Your task to perform on an android device: set the timer Image 0: 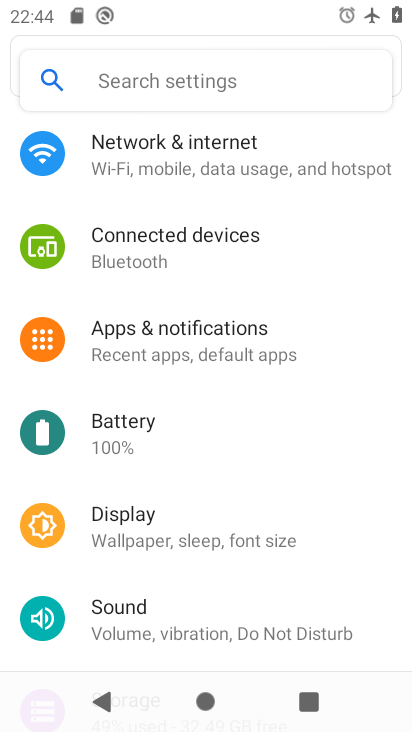
Step 0: press home button
Your task to perform on an android device: set the timer Image 1: 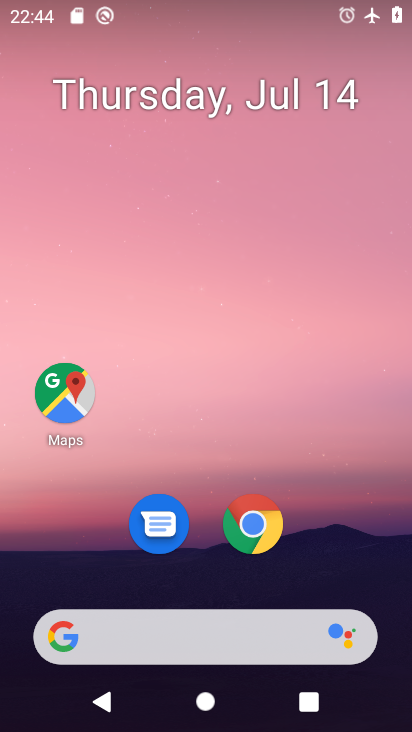
Step 1: drag from (302, 457) to (294, 5)
Your task to perform on an android device: set the timer Image 2: 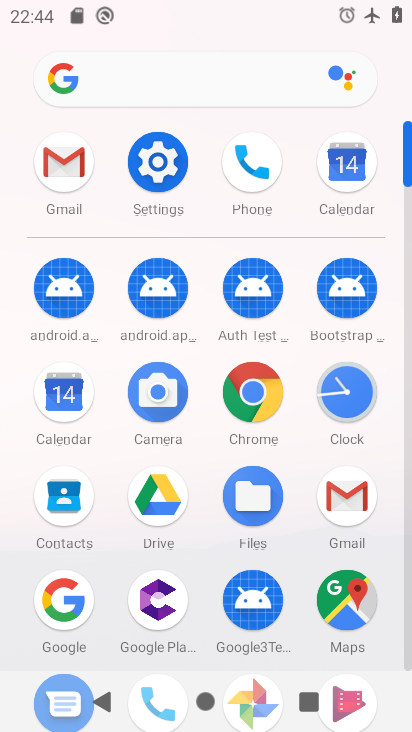
Step 2: click (362, 390)
Your task to perform on an android device: set the timer Image 3: 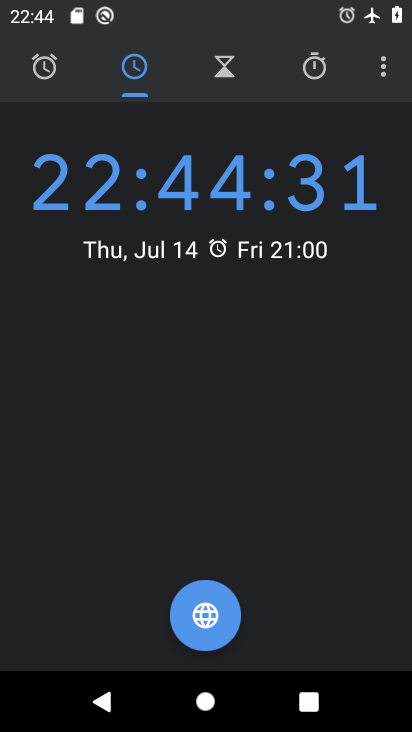
Step 3: click (225, 74)
Your task to perform on an android device: set the timer Image 4: 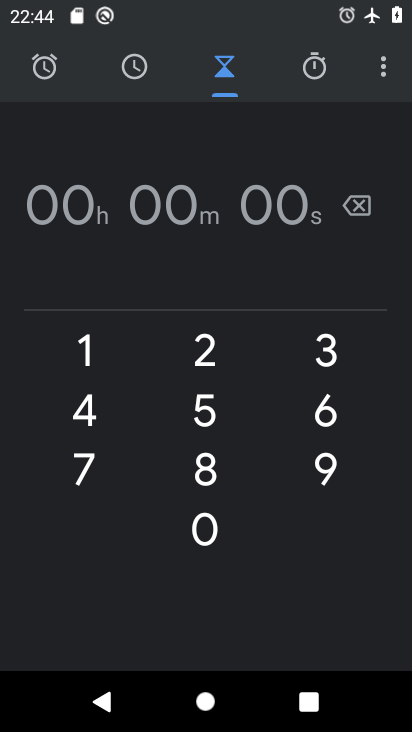
Step 4: task complete